Your task to perform on an android device: Search for top rated sushi restaurant Image 0: 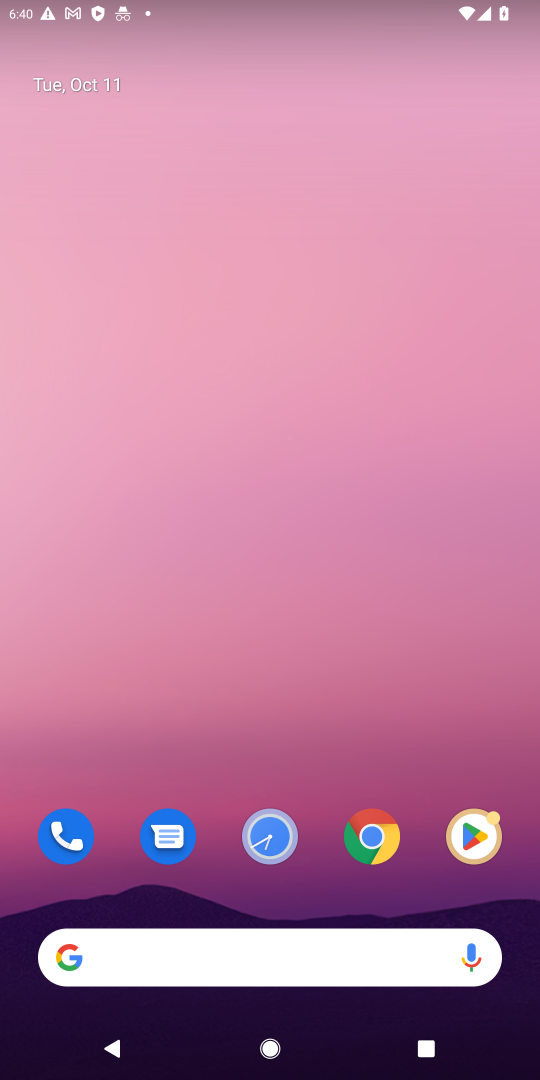
Step 0: click (374, 842)
Your task to perform on an android device: Search for top rated sushi restaurant Image 1: 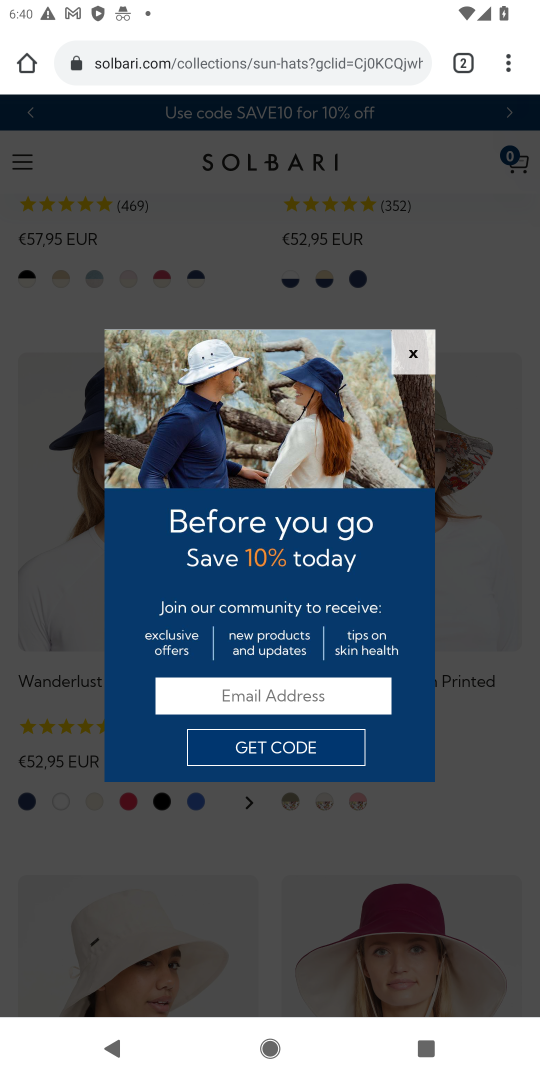
Step 1: click (214, 42)
Your task to perform on an android device: Search for top rated sushi restaurant Image 2: 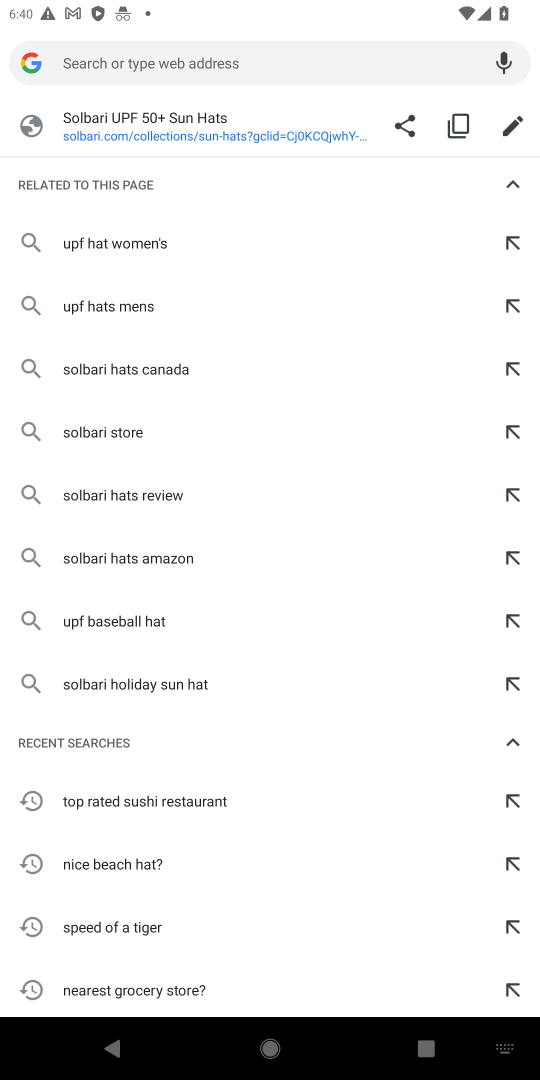
Step 2: type "top rated sushi restaurant"
Your task to perform on an android device: Search for top rated sushi restaurant Image 3: 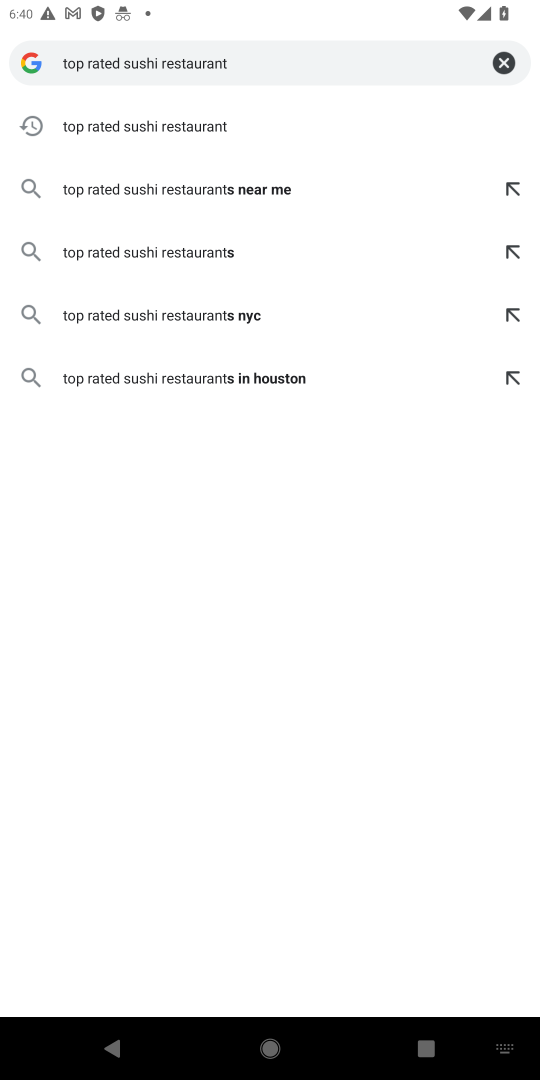
Step 3: click (106, 128)
Your task to perform on an android device: Search for top rated sushi restaurant Image 4: 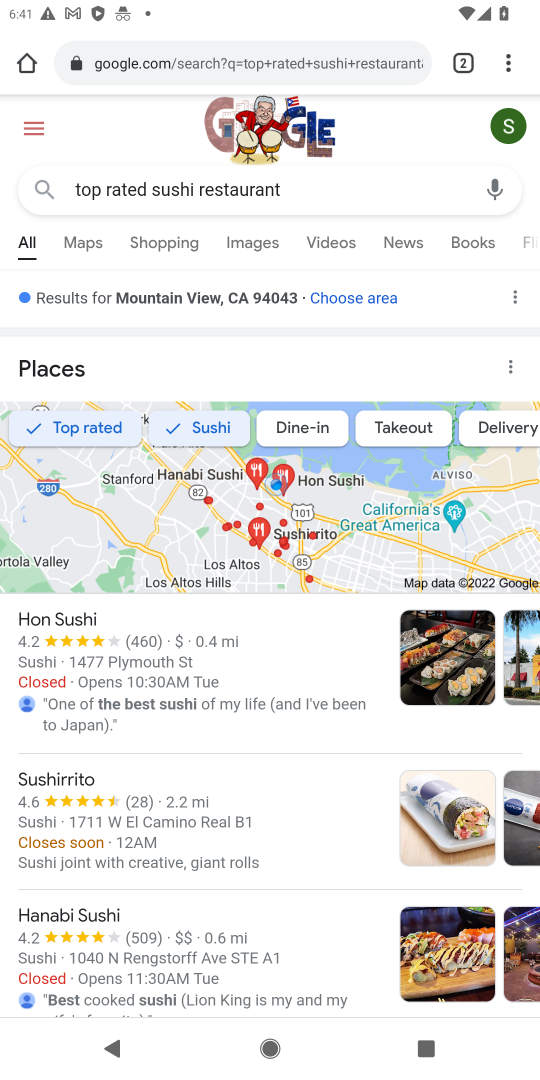
Step 4: drag from (282, 615) to (284, 190)
Your task to perform on an android device: Search for top rated sushi restaurant Image 5: 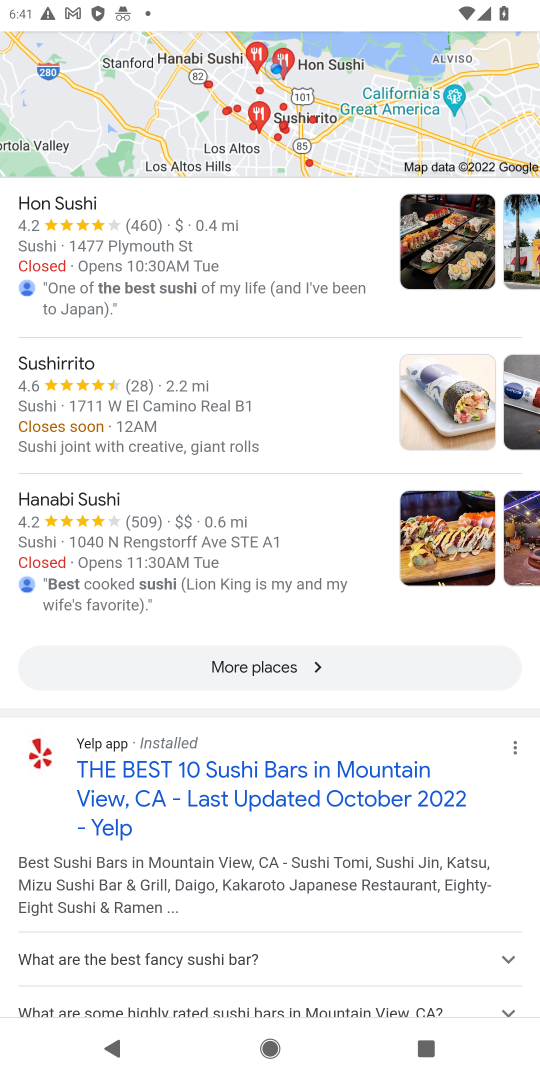
Step 5: drag from (326, 619) to (338, 432)
Your task to perform on an android device: Search for top rated sushi restaurant Image 6: 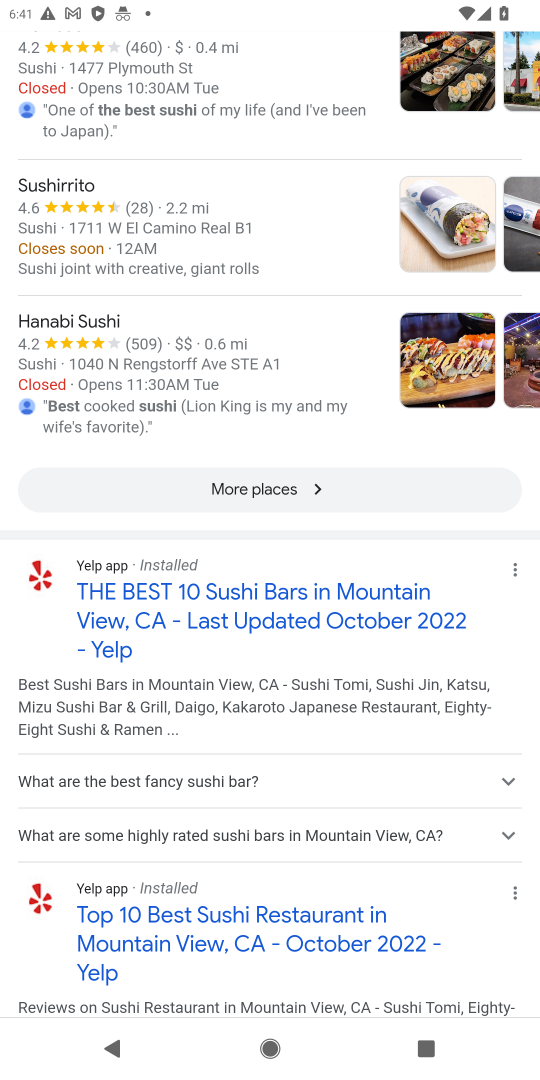
Step 6: drag from (326, 762) to (310, 284)
Your task to perform on an android device: Search for top rated sushi restaurant Image 7: 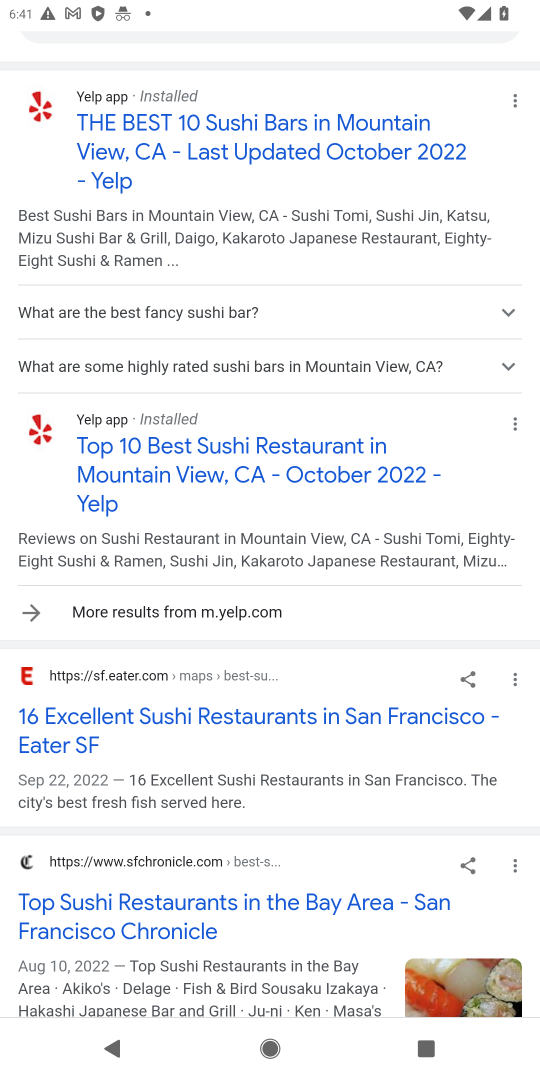
Step 7: click (107, 719)
Your task to perform on an android device: Search for top rated sushi restaurant Image 8: 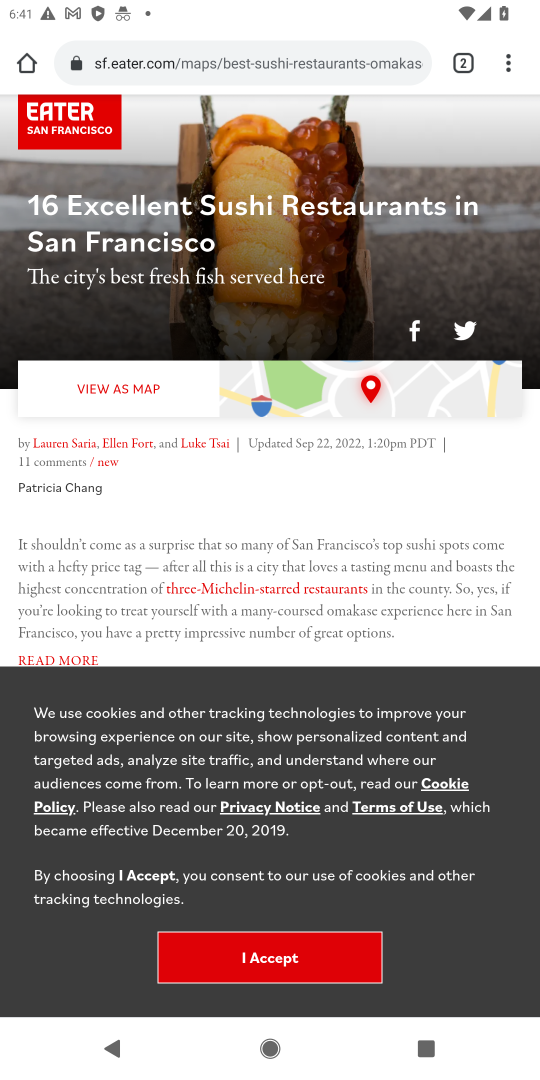
Step 8: click (258, 953)
Your task to perform on an android device: Search for top rated sushi restaurant Image 9: 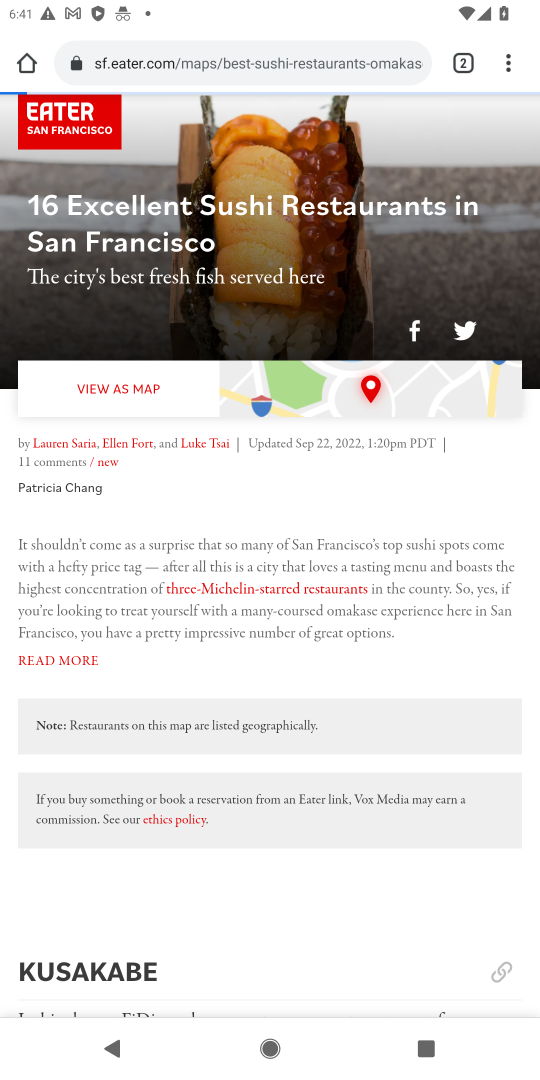
Step 9: task complete